Your task to perform on an android device: Is it going to rain this weekend? Image 0: 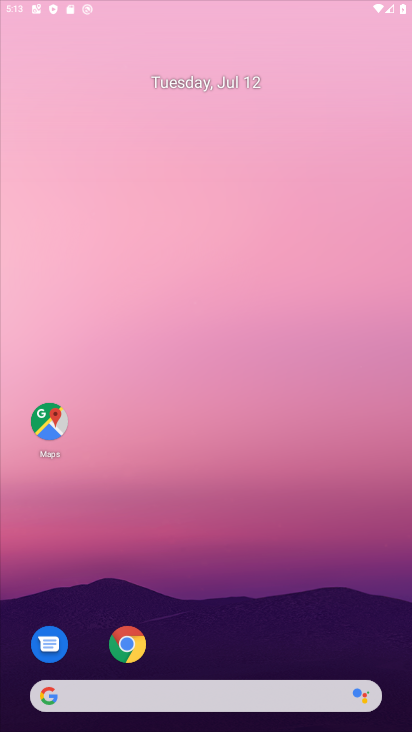
Step 0: press home button
Your task to perform on an android device: Is it going to rain this weekend? Image 1: 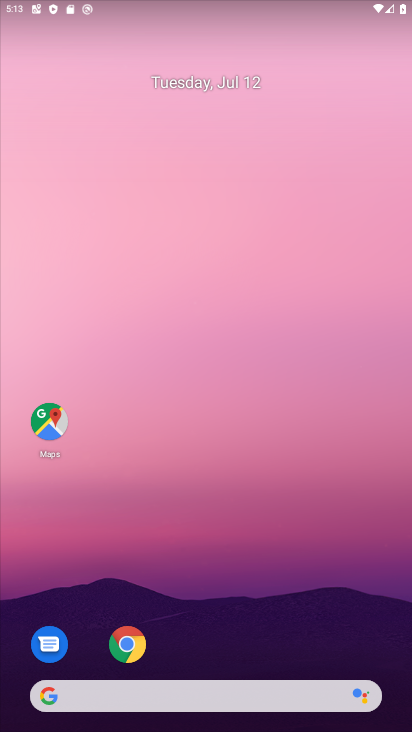
Step 1: drag from (286, 641) to (248, 135)
Your task to perform on an android device: Is it going to rain this weekend? Image 2: 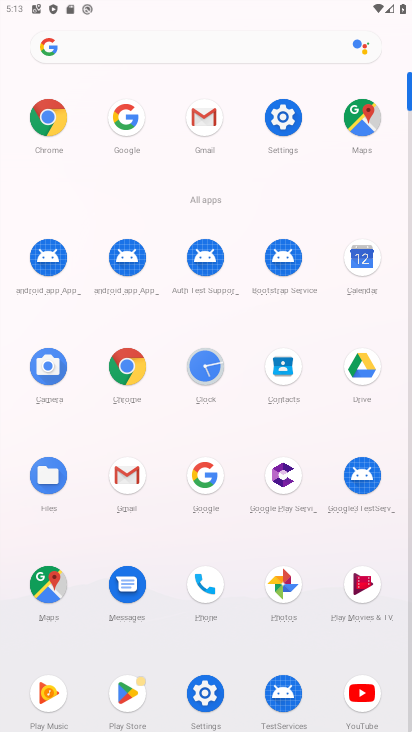
Step 2: click (123, 377)
Your task to perform on an android device: Is it going to rain this weekend? Image 3: 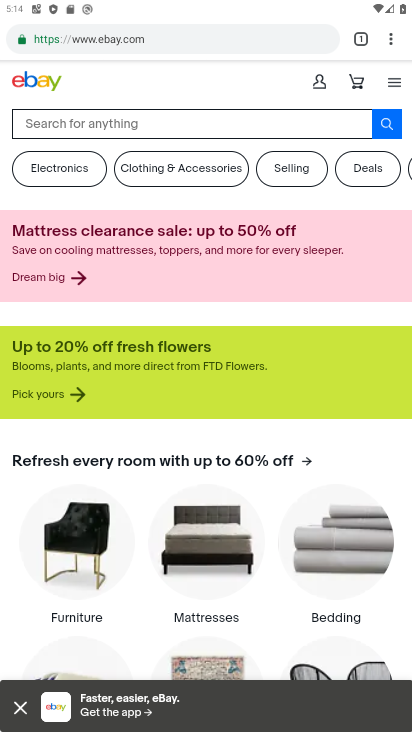
Step 3: click (206, 38)
Your task to perform on an android device: Is it going to rain this weekend? Image 4: 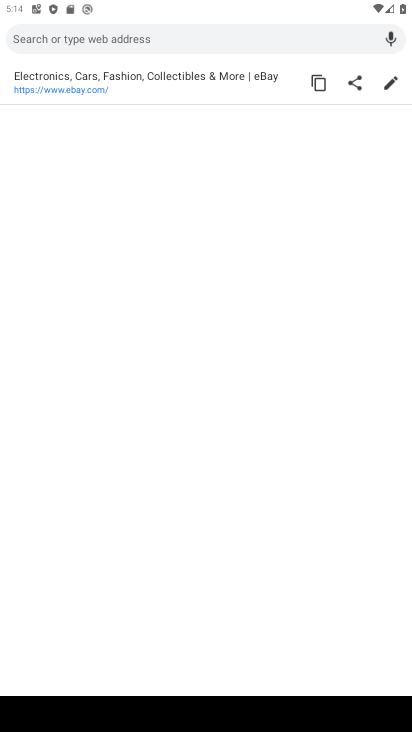
Step 4: type "Is it going to rain this weekend?"
Your task to perform on an android device: Is it going to rain this weekend? Image 5: 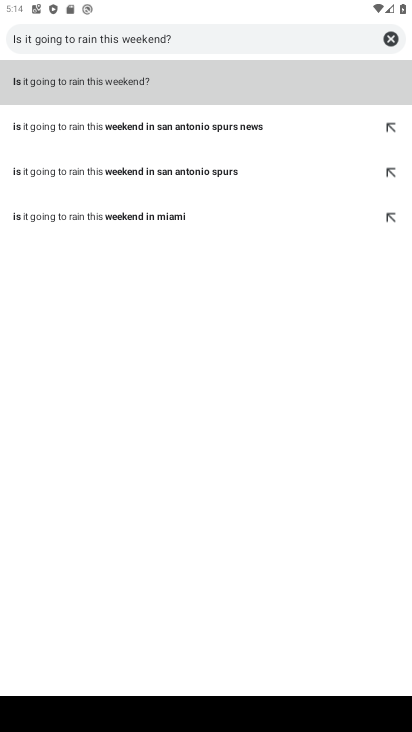
Step 5: click (252, 78)
Your task to perform on an android device: Is it going to rain this weekend? Image 6: 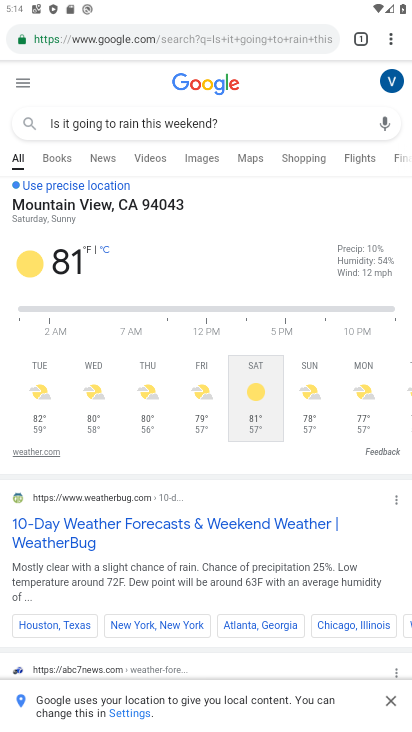
Step 6: task complete